Your task to perform on an android device: Go to location settings Image 0: 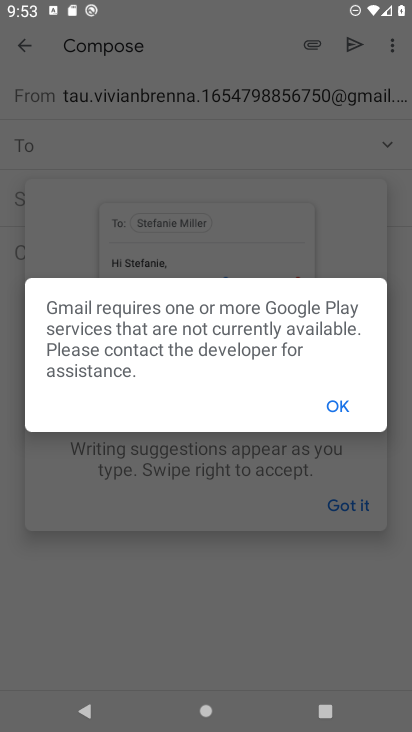
Step 0: press home button
Your task to perform on an android device: Go to location settings Image 1: 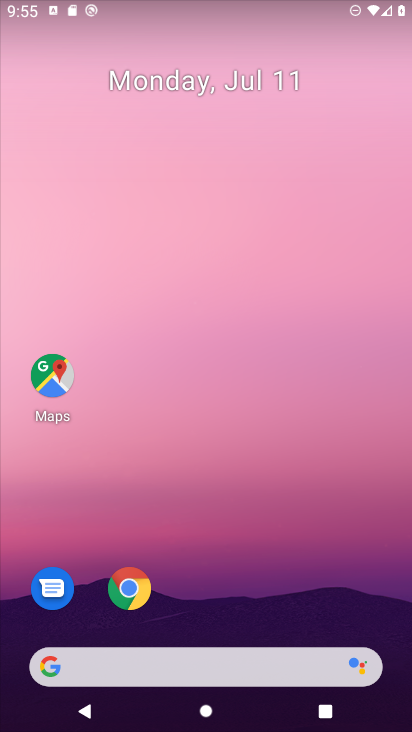
Step 1: drag from (325, 602) to (181, 153)
Your task to perform on an android device: Go to location settings Image 2: 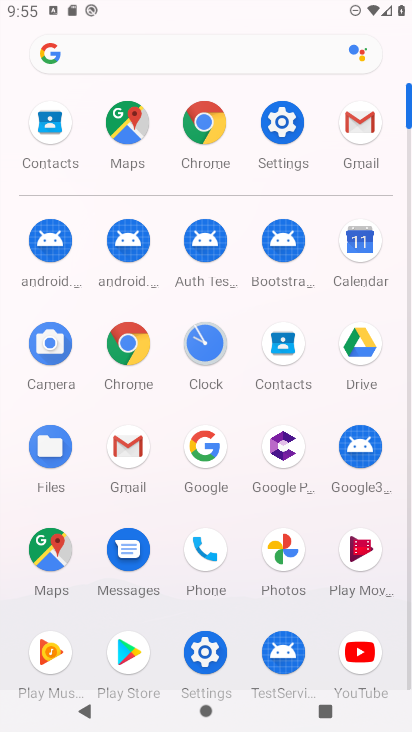
Step 2: click (268, 133)
Your task to perform on an android device: Go to location settings Image 3: 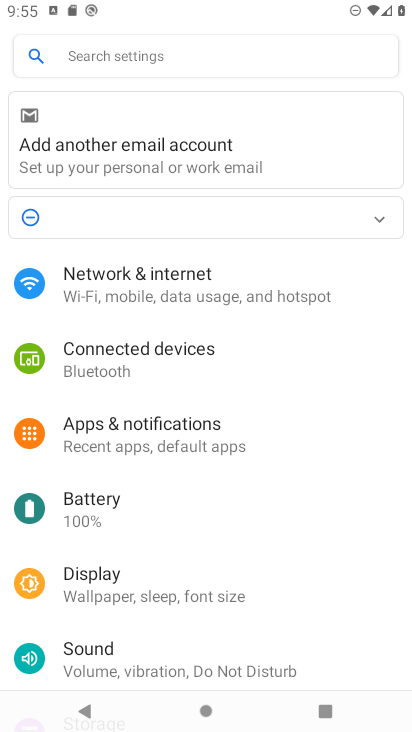
Step 3: drag from (130, 611) to (125, 316)
Your task to perform on an android device: Go to location settings Image 4: 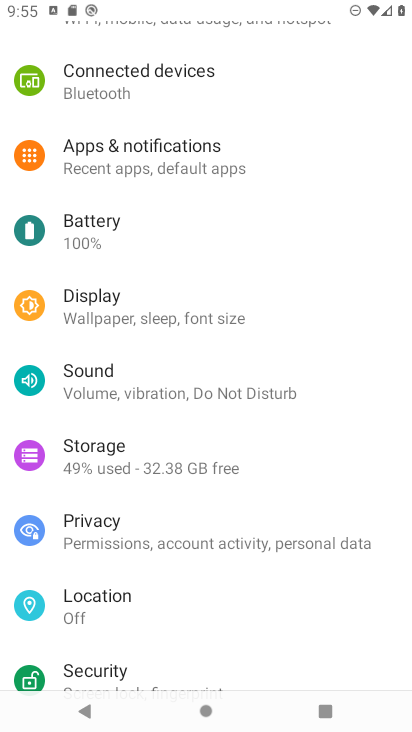
Step 4: click (113, 624)
Your task to perform on an android device: Go to location settings Image 5: 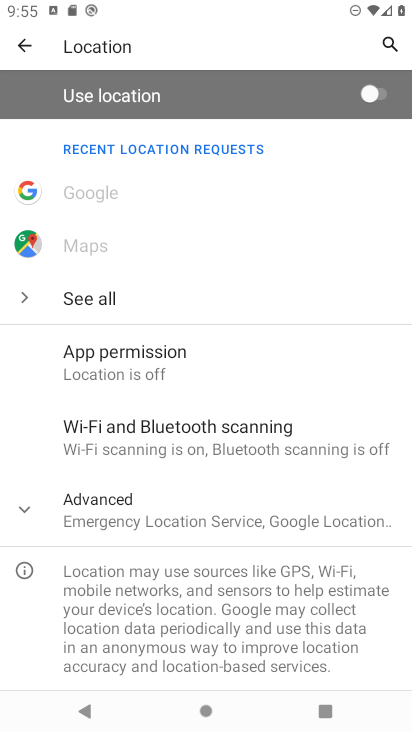
Step 5: task complete